Your task to perform on an android device: Open Android settings Image 0: 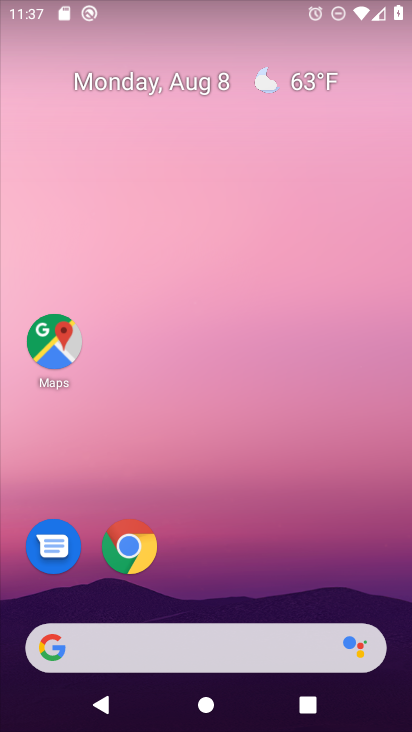
Step 0: press home button
Your task to perform on an android device: Open Android settings Image 1: 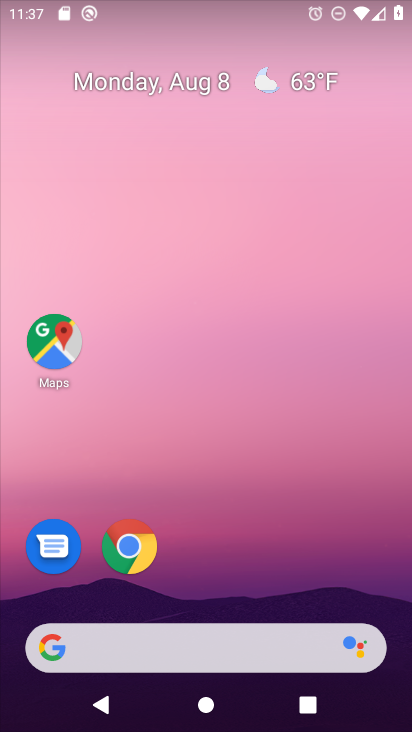
Step 1: drag from (233, 603) to (273, 53)
Your task to perform on an android device: Open Android settings Image 2: 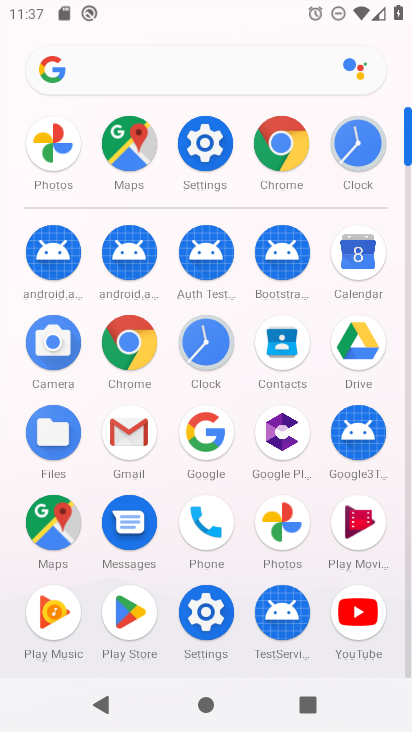
Step 2: click (204, 136)
Your task to perform on an android device: Open Android settings Image 3: 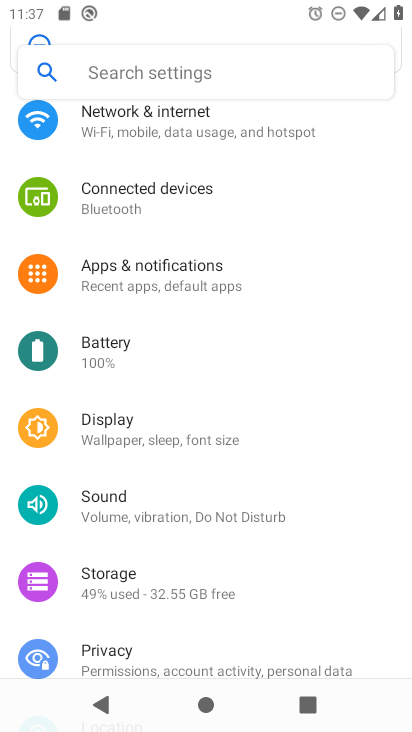
Step 3: drag from (238, 636) to (265, 120)
Your task to perform on an android device: Open Android settings Image 4: 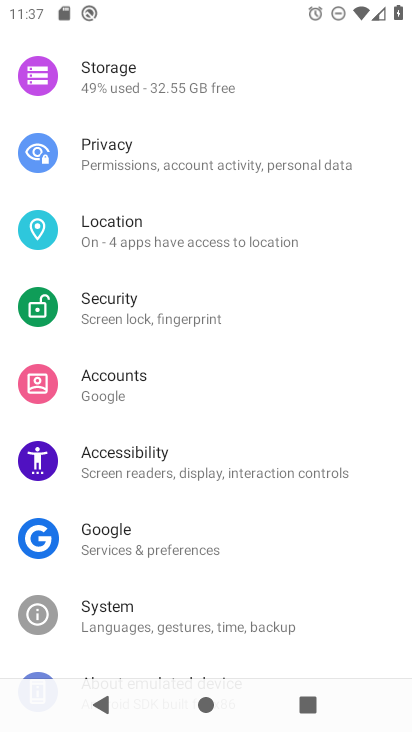
Step 4: drag from (235, 640) to (275, 149)
Your task to perform on an android device: Open Android settings Image 5: 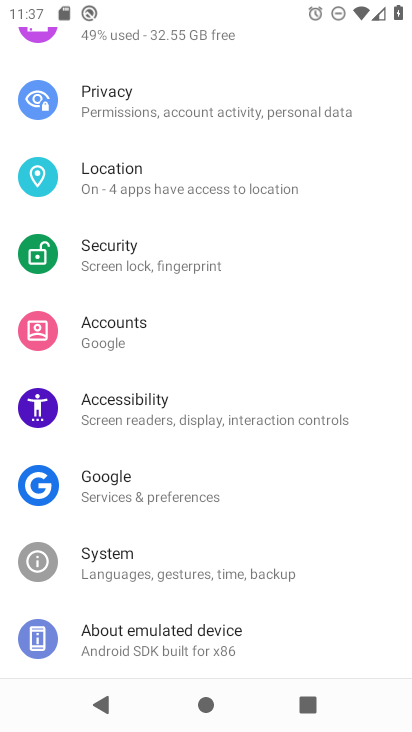
Step 5: click (243, 643)
Your task to perform on an android device: Open Android settings Image 6: 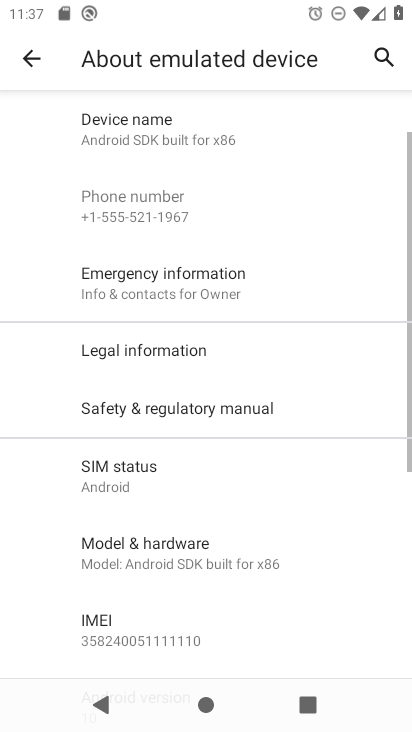
Step 6: drag from (235, 647) to (257, 172)
Your task to perform on an android device: Open Android settings Image 7: 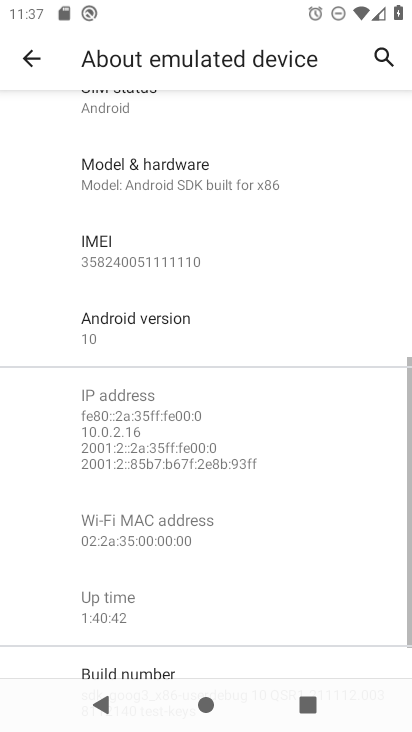
Step 7: click (145, 338)
Your task to perform on an android device: Open Android settings Image 8: 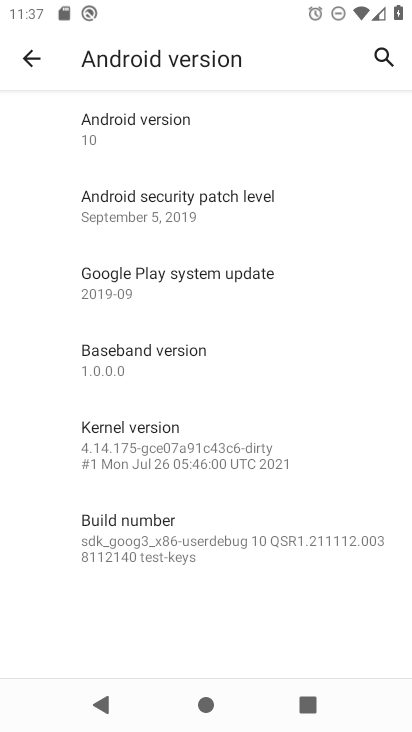
Step 8: task complete